Your task to perform on an android device: Go to eBay Image 0: 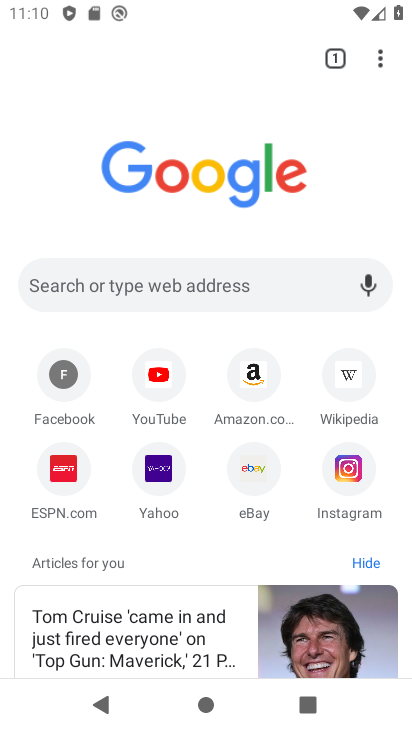
Step 0: click (253, 473)
Your task to perform on an android device: Go to eBay Image 1: 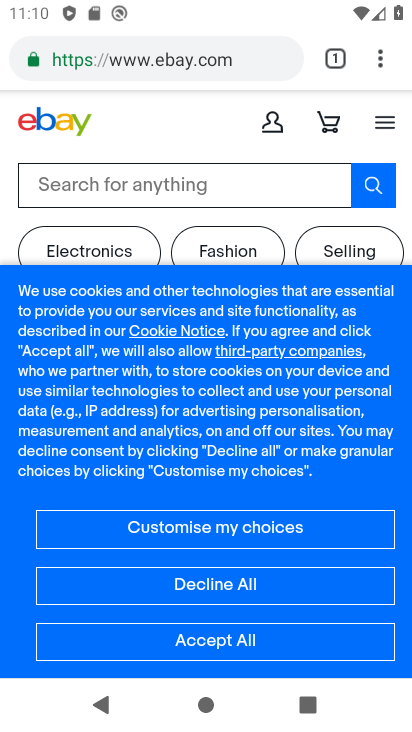
Step 1: task complete